Your task to perform on an android device: Open my contact list Image 0: 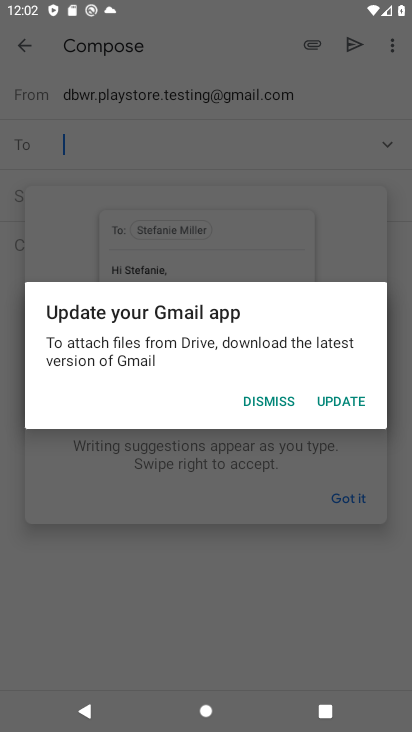
Step 0: press home button
Your task to perform on an android device: Open my contact list Image 1: 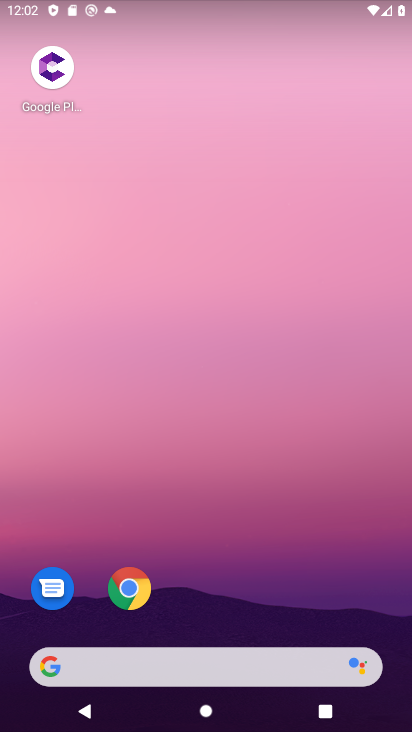
Step 1: drag from (397, 612) to (402, 141)
Your task to perform on an android device: Open my contact list Image 2: 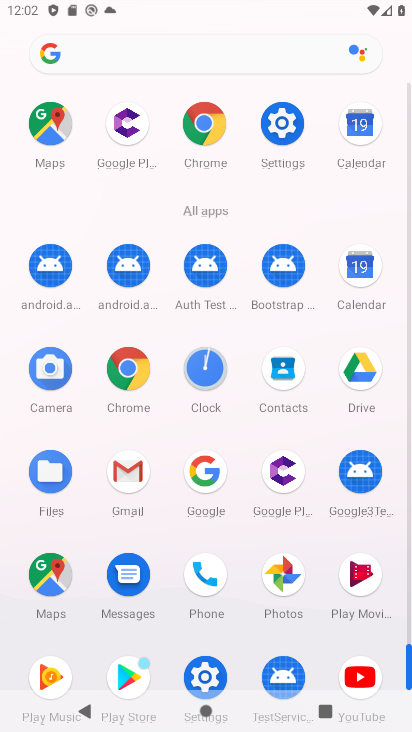
Step 2: click (284, 367)
Your task to perform on an android device: Open my contact list Image 3: 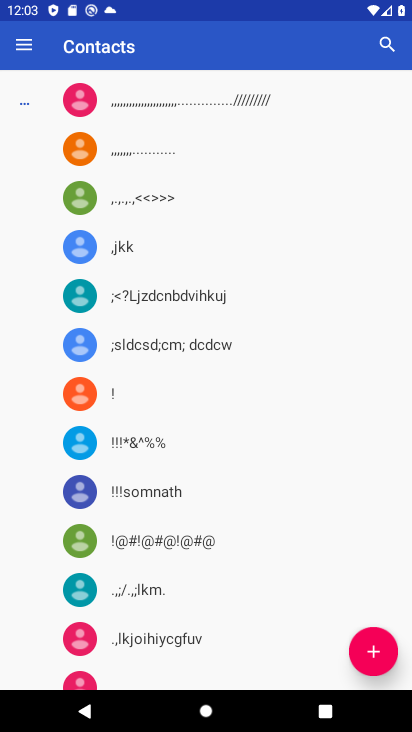
Step 3: task complete